Your task to perform on an android device: Go to battery settings Image 0: 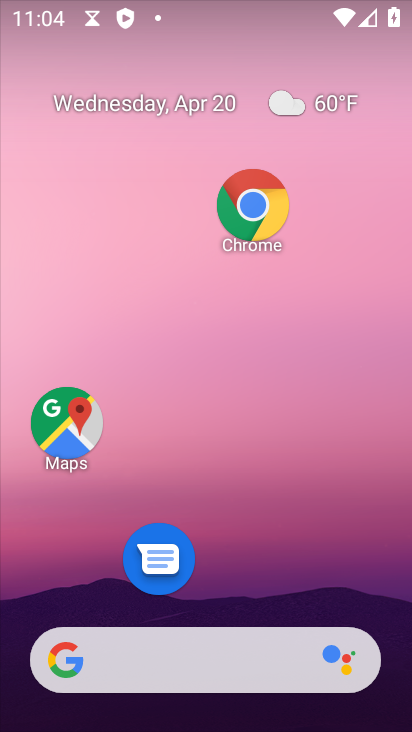
Step 0: drag from (355, 594) to (307, 150)
Your task to perform on an android device: Go to battery settings Image 1: 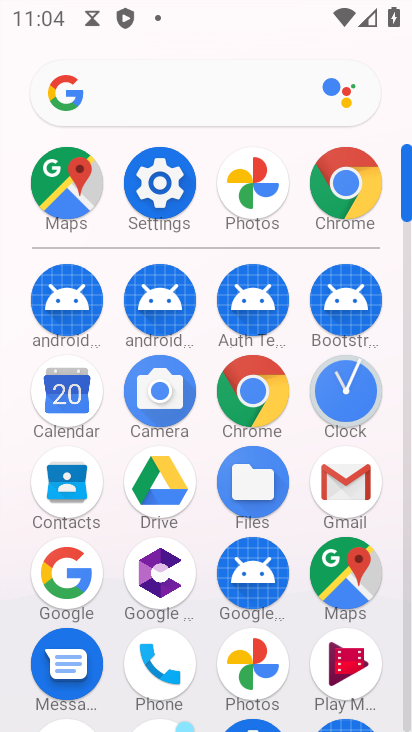
Step 1: drag from (194, 653) to (199, 231)
Your task to perform on an android device: Go to battery settings Image 2: 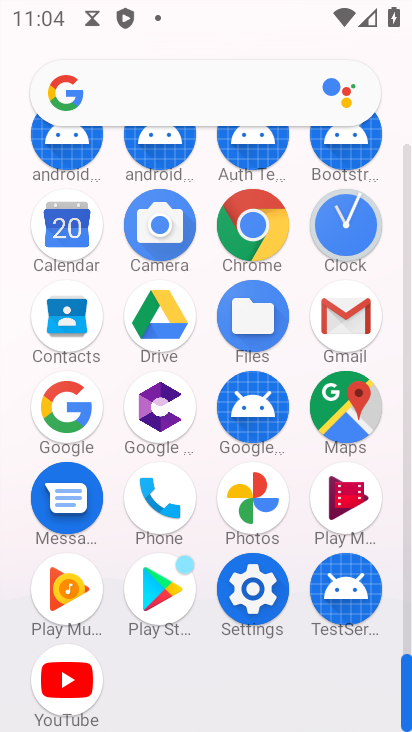
Step 2: click (253, 593)
Your task to perform on an android device: Go to battery settings Image 3: 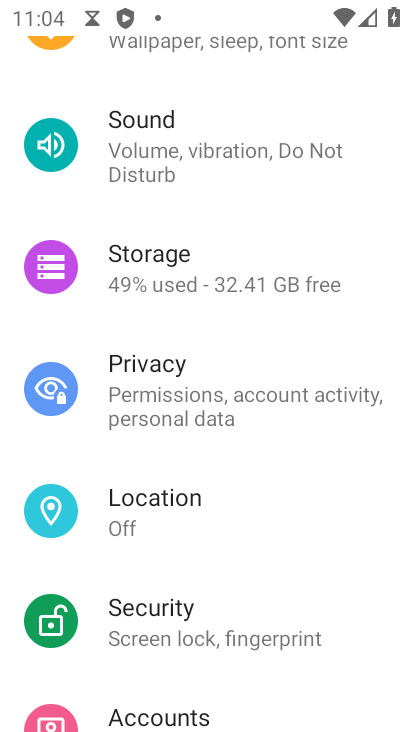
Step 3: drag from (256, 154) to (263, 607)
Your task to perform on an android device: Go to battery settings Image 4: 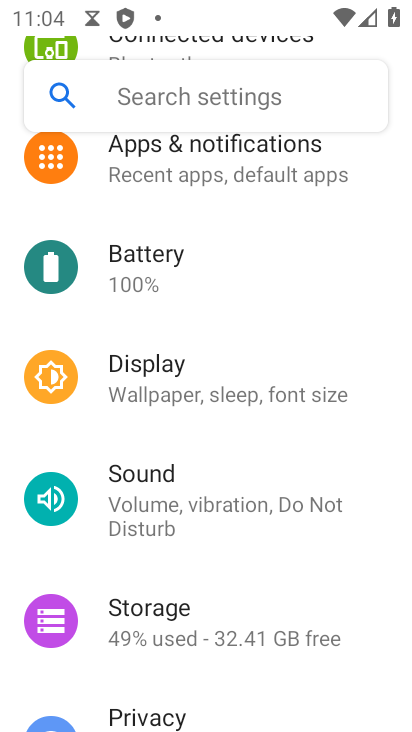
Step 4: click (182, 273)
Your task to perform on an android device: Go to battery settings Image 5: 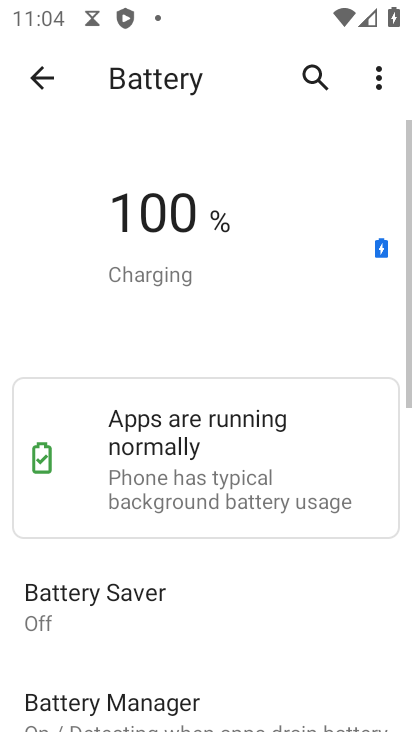
Step 5: task complete